Your task to perform on an android device: turn on sleep mode Image 0: 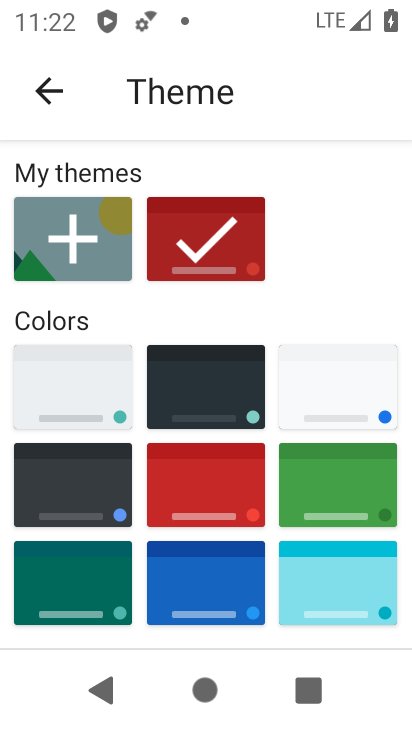
Step 0: press home button
Your task to perform on an android device: turn on sleep mode Image 1: 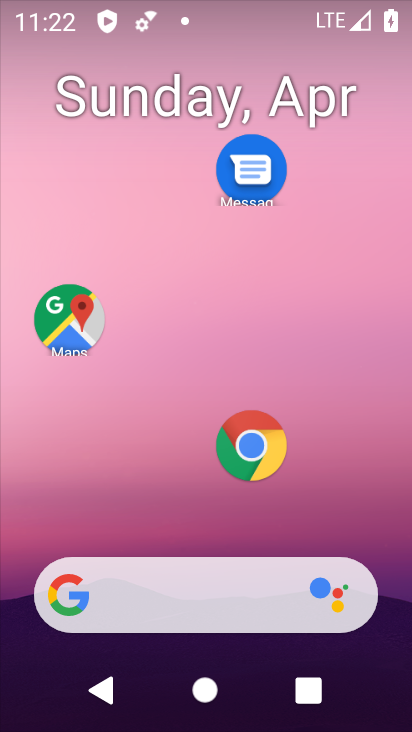
Step 1: drag from (163, 606) to (305, 190)
Your task to perform on an android device: turn on sleep mode Image 2: 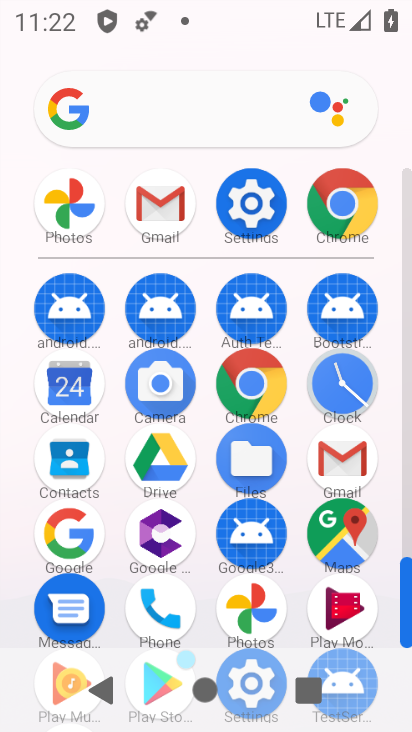
Step 2: click (245, 211)
Your task to perform on an android device: turn on sleep mode Image 3: 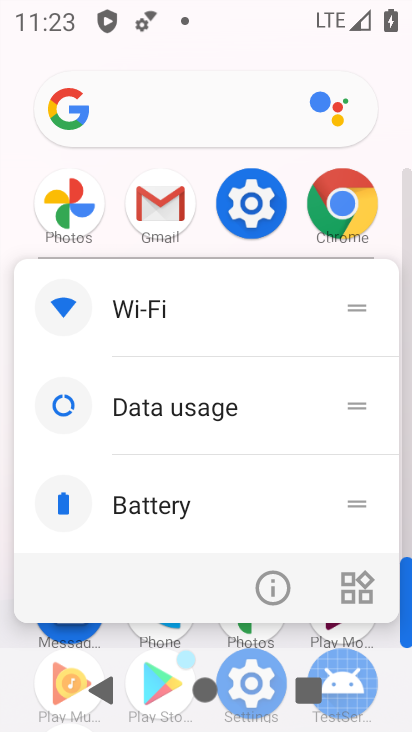
Step 3: click (256, 211)
Your task to perform on an android device: turn on sleep mode Image 4: 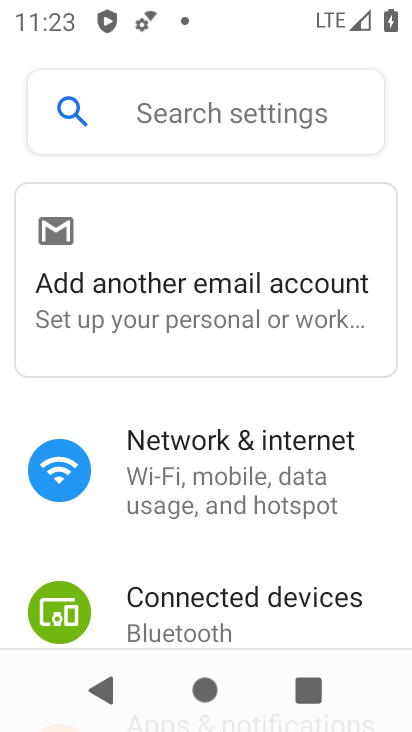
Step 4: drag from (221, 579) to (324, 244)
Your task to perform on an android device: turn on sleep mode Image 5: 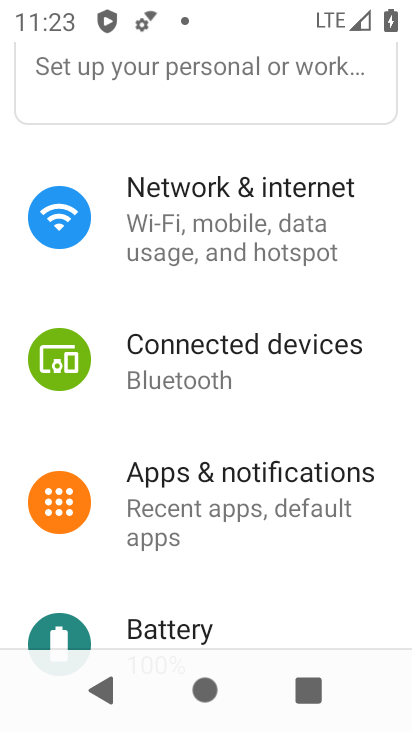
Step 5: drag from (218, 592) to (297, 300)
Your task to perform on an android device: turn on sleep mode Image 6: 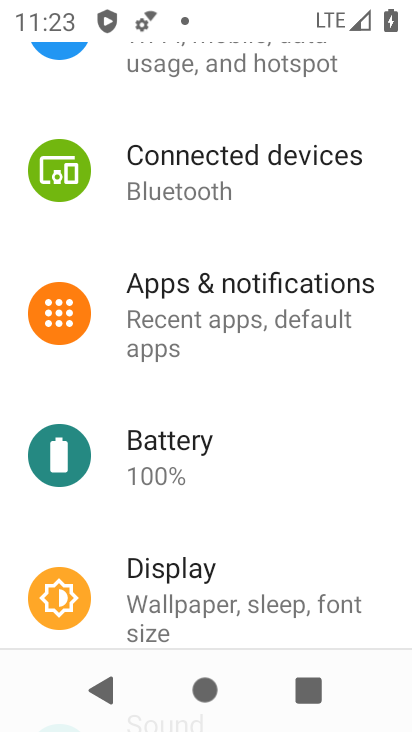
Step 6: click (331, 179)
Your task to perform on an android device: turn on sleep mode Image 7: 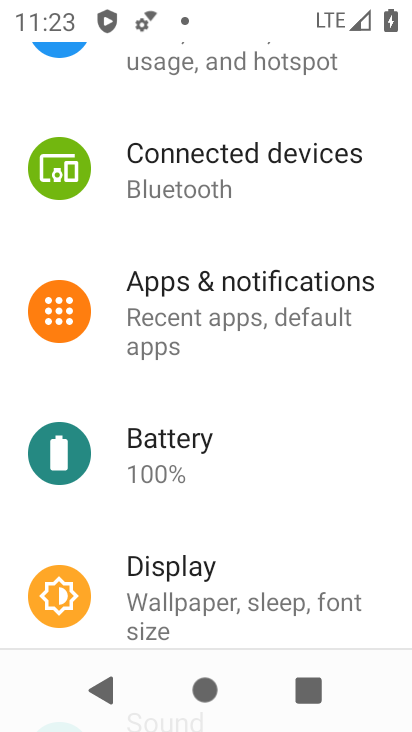
Step 7: drag from (232, 515) to (266, 315)
Your task to perform on an android device: turn on sleep mode Image 8: 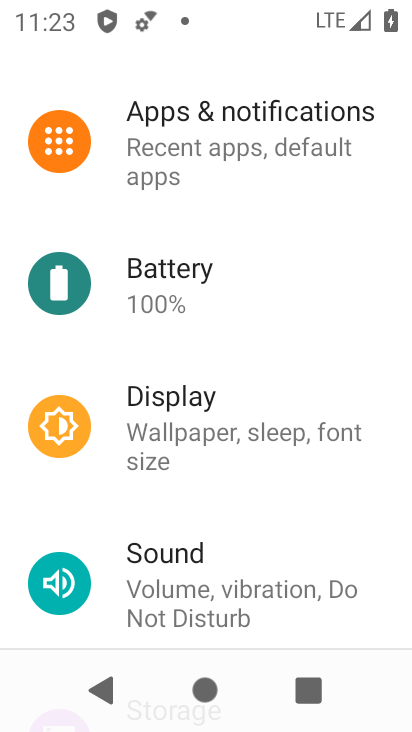
Step 8: click (162, 425)
Your task to perform on an android device: turn on sleep mode Image 9: 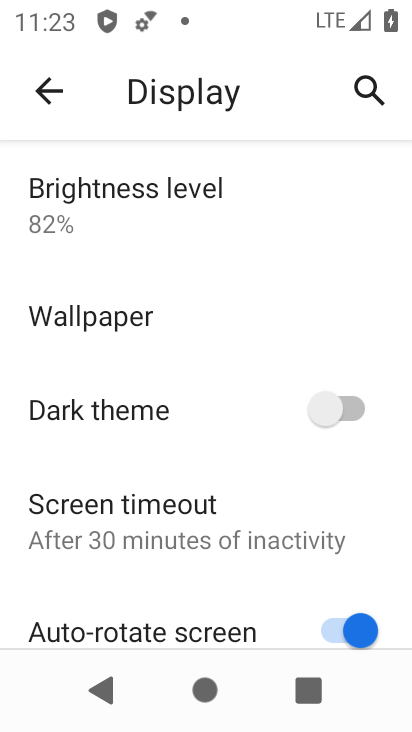
Step 9: drag from (108, 590) to (247, 187)
Your task to perform on an android device: turn on sleep mode Image 10: 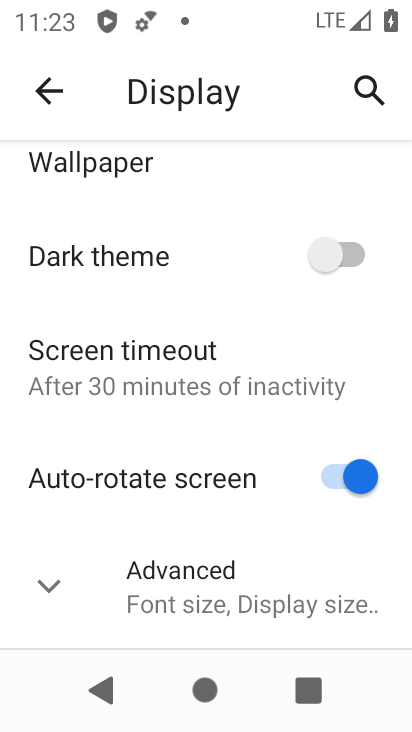
Step 10: click (63, 580)
Your task to perform on an android device: turn on sleep mode Image 11: 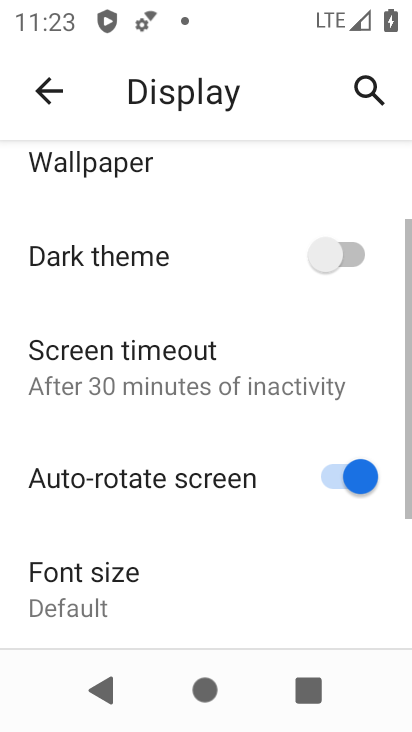
Step 11: task complete